Your task to perform on an android device: see sites visited before in the chrome app Image 0: 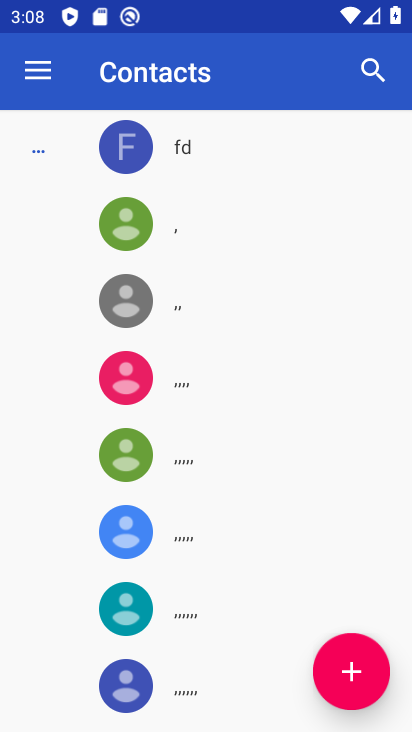
Step 0: press home button
Your task to perform on an android device: see sites visited before in the chrome app Image 1: 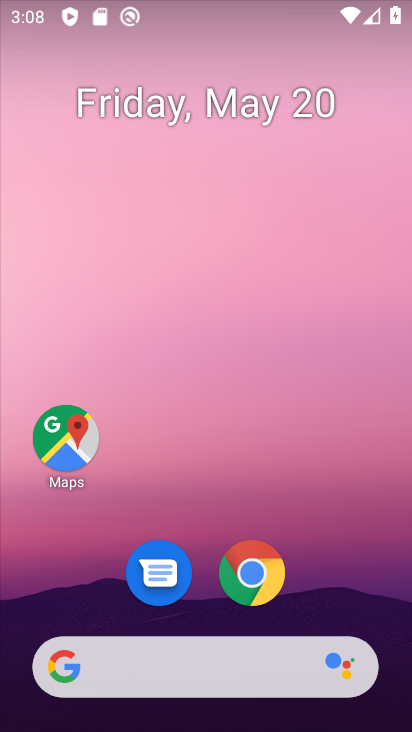
Step 1: click (264, 575)
Your task to perform on an android device: see sites visited before in the chrome app Image 2: 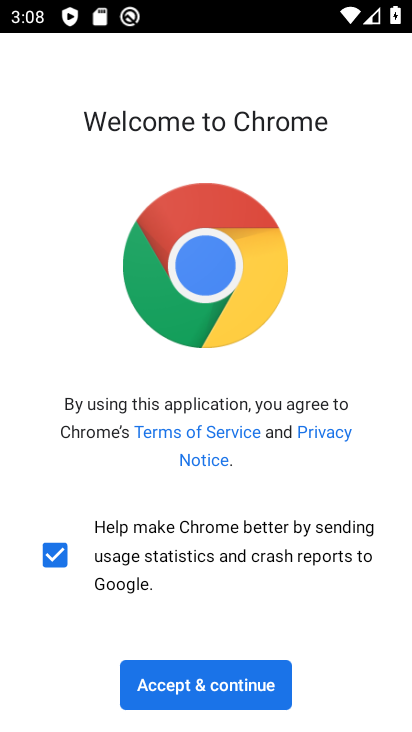
Step 2: click (268, 672)
Your task to perform on an android device: see sites visited before in the chrome app Image 3: 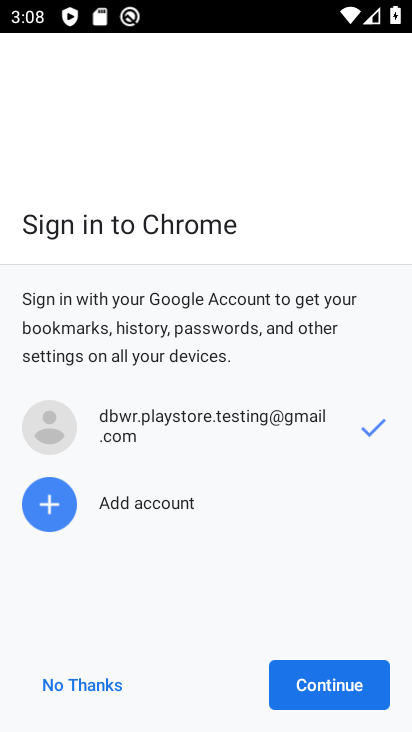
Step 3: click (314, 668)
Your task to perform on an android device: see sites visited before in the chrome app Image 4: 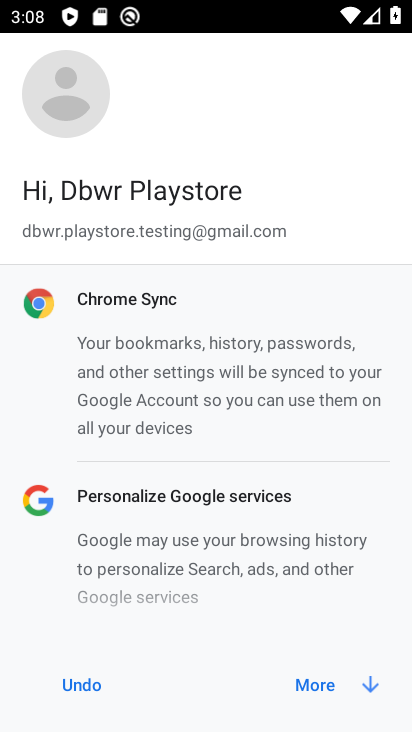
Step 4: click (348, 679)
Your task to perform on an android device: see sites visited before in the chrome app Image 5: 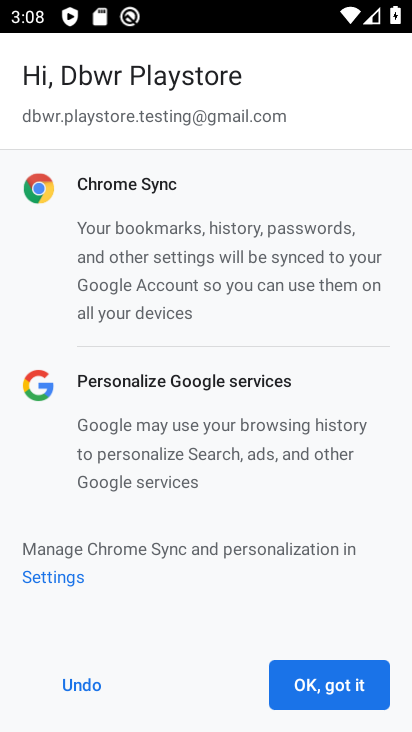
Step 5: click (348, 679)
Your task to perform on an android device: see sites visited before in the chrome app Image 6: 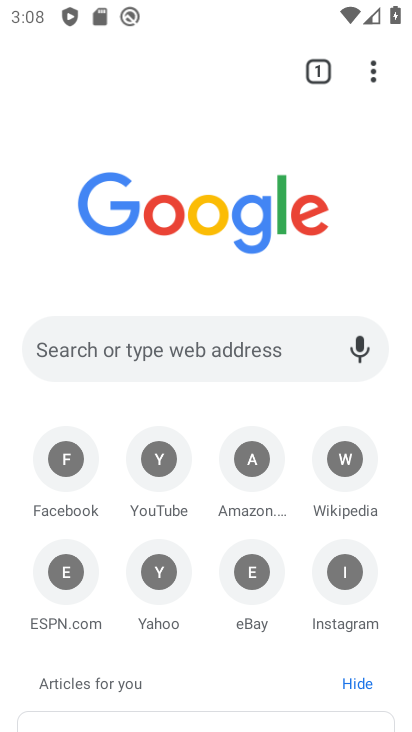
Step 6: click (364, 77)
Your task to perform on an android device: see sites visited before in the chrome app Image 7: 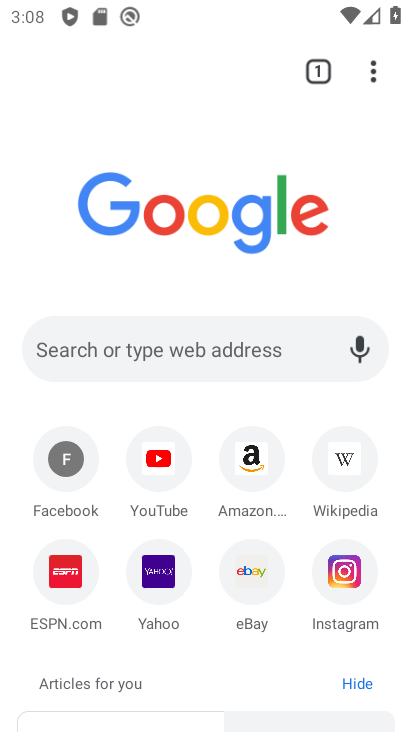
Step 7: task complete